Your task to perform on an android device: Open Google Maps and go to "Timeline" Image 0: 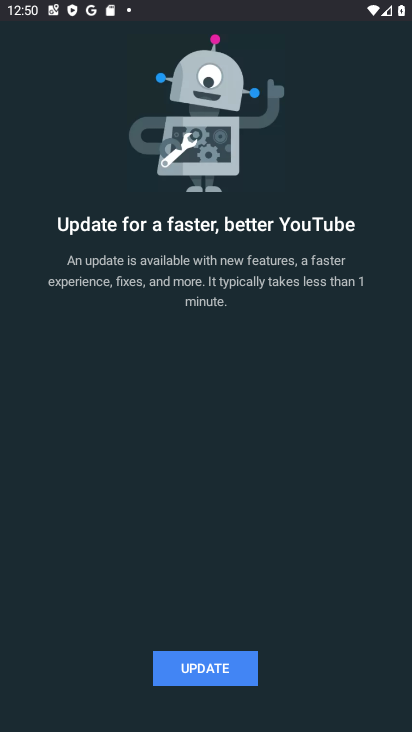
Step 0: press home button
Your task to perform on an android device: Open Google Maps and go to "Timeline" Image 1: 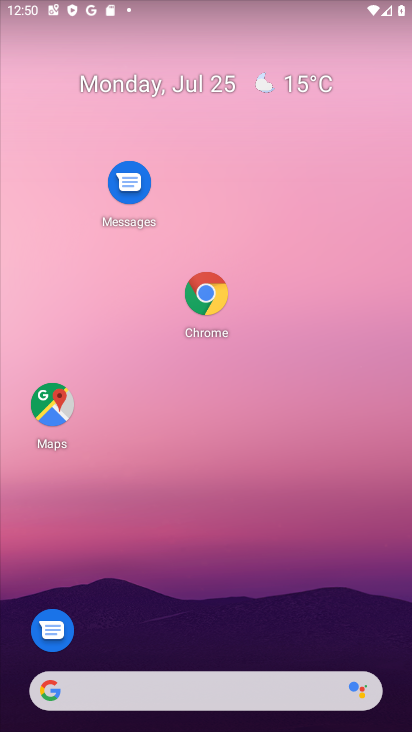
Step 1: drag from (293, 637) to (338, 142)
Your task to perform on an android device: Open Google Maps and go to "Timeline" Image 2: 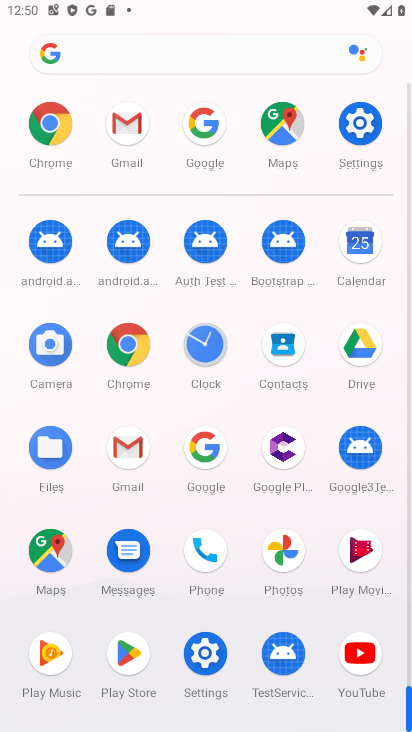
Step 2: click (280, 105)
Your task to perform on an android device: Open Google Maps and go to "Timeline" Image 3: 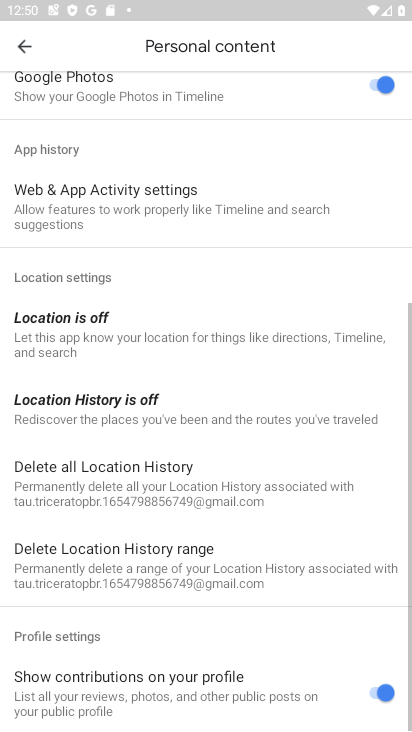
Step 3: click (20, 43)
Your task to perform on an android device: Open Google Maps and go to "Timeline" Image 4: 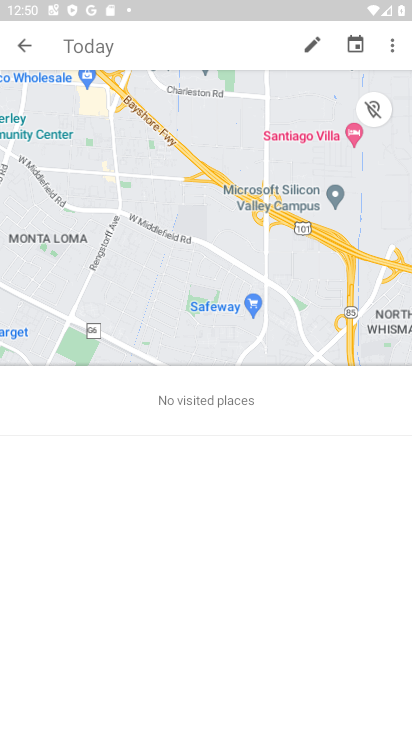
Step 4: task complete